Your task to perform on an android device: Clear the shopping cart on target. Search for energizer triple a on target, select the first entry, add it to the cart, then select checkout. Image 0: 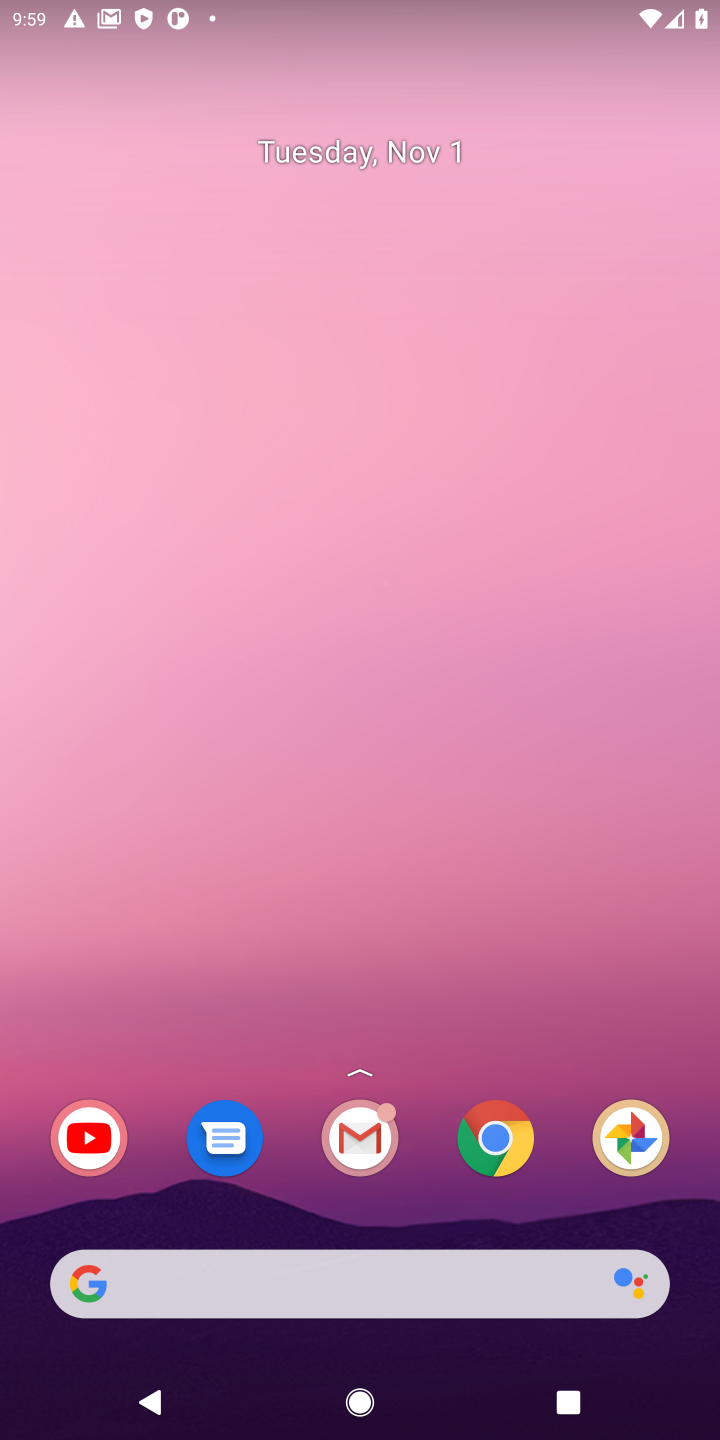
Step 0: click (489, 1139)
Your task to perform on an android device: Clear the shopping cart on target. Search for energizer triple a on target, select the first entry, add it to the cart, then select checkout. Image 1: 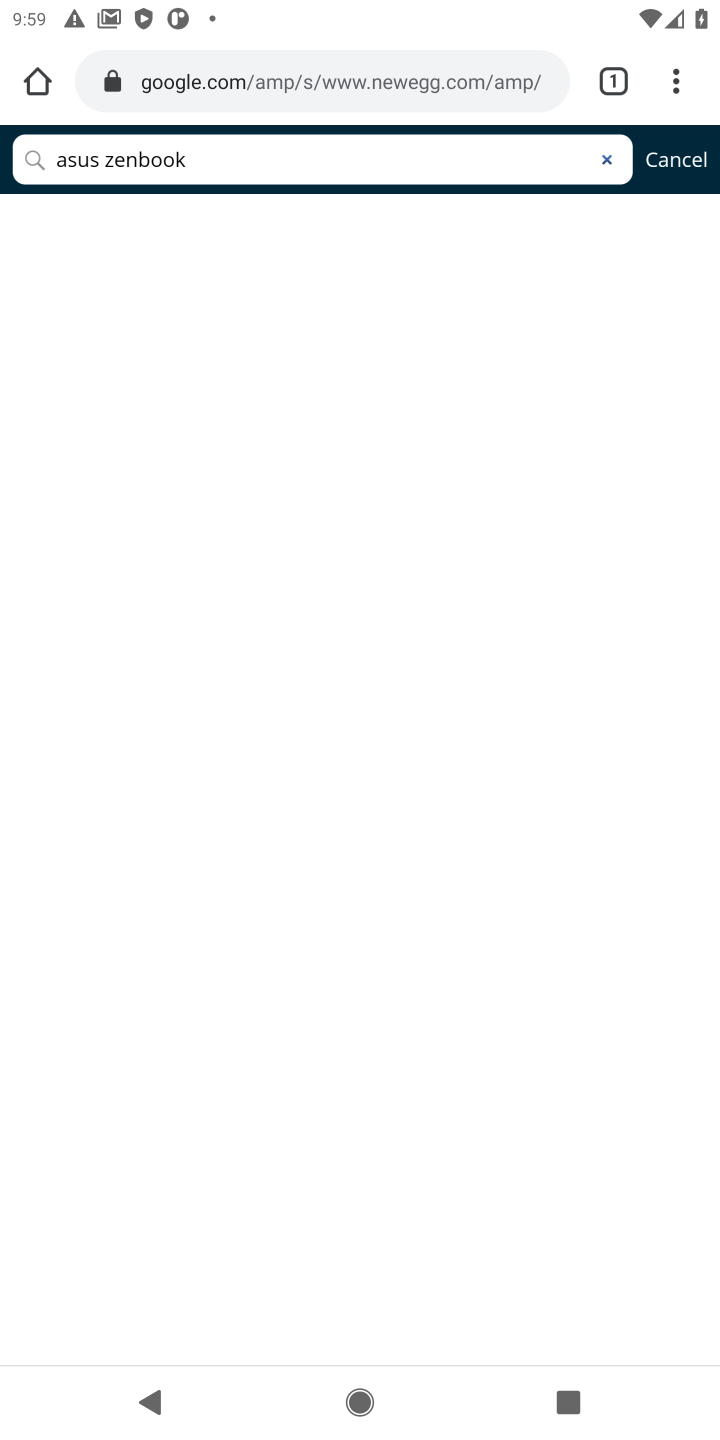
Step 1: click (200, 93)
Your task to perform on an android device: Clear the shopping cart on target. Search for energizer triple a on target, select the first entry, add it to the cart, then select checkout. Image 2: 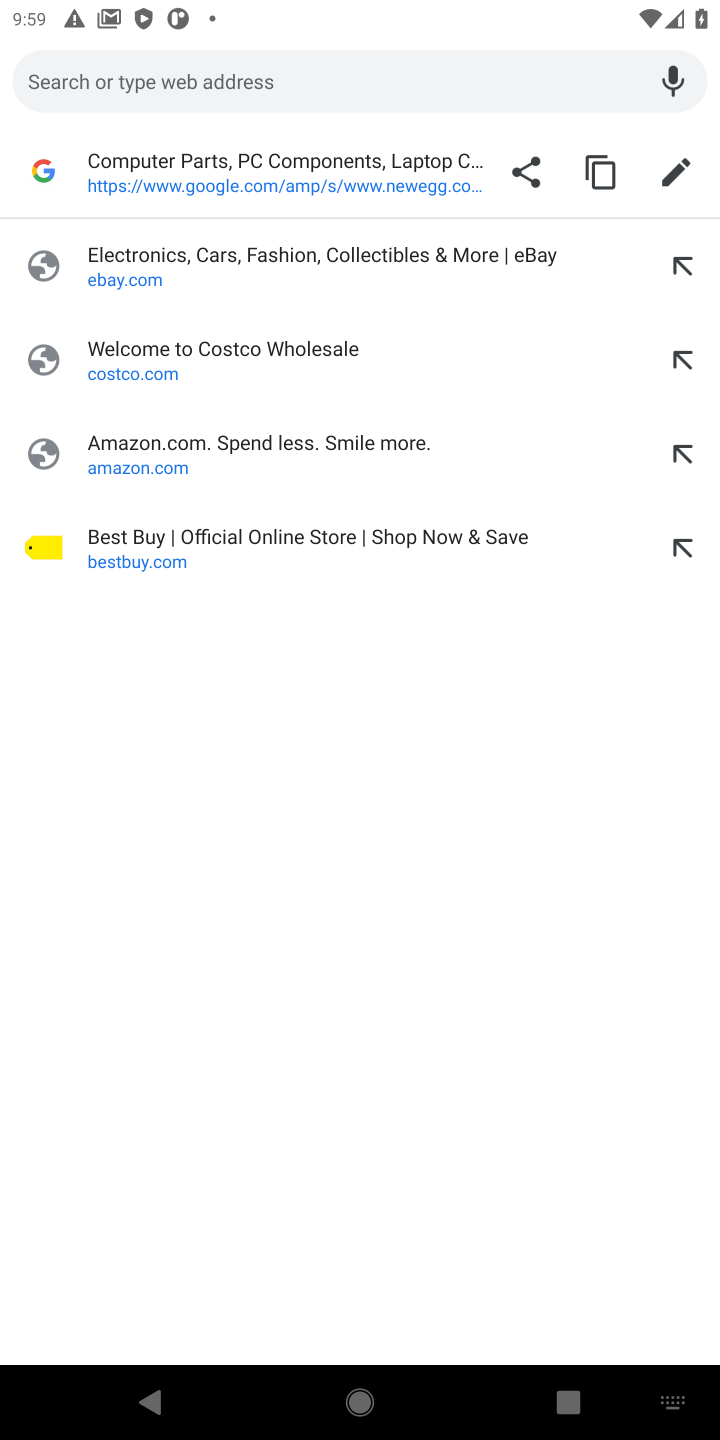
Step 2: type "target.com"
Your task to perform on an android device: Clear the shopping cart on target. Search for energizer triple a on target, select the first entry, add it to the cart, then select checkout. Image 3: 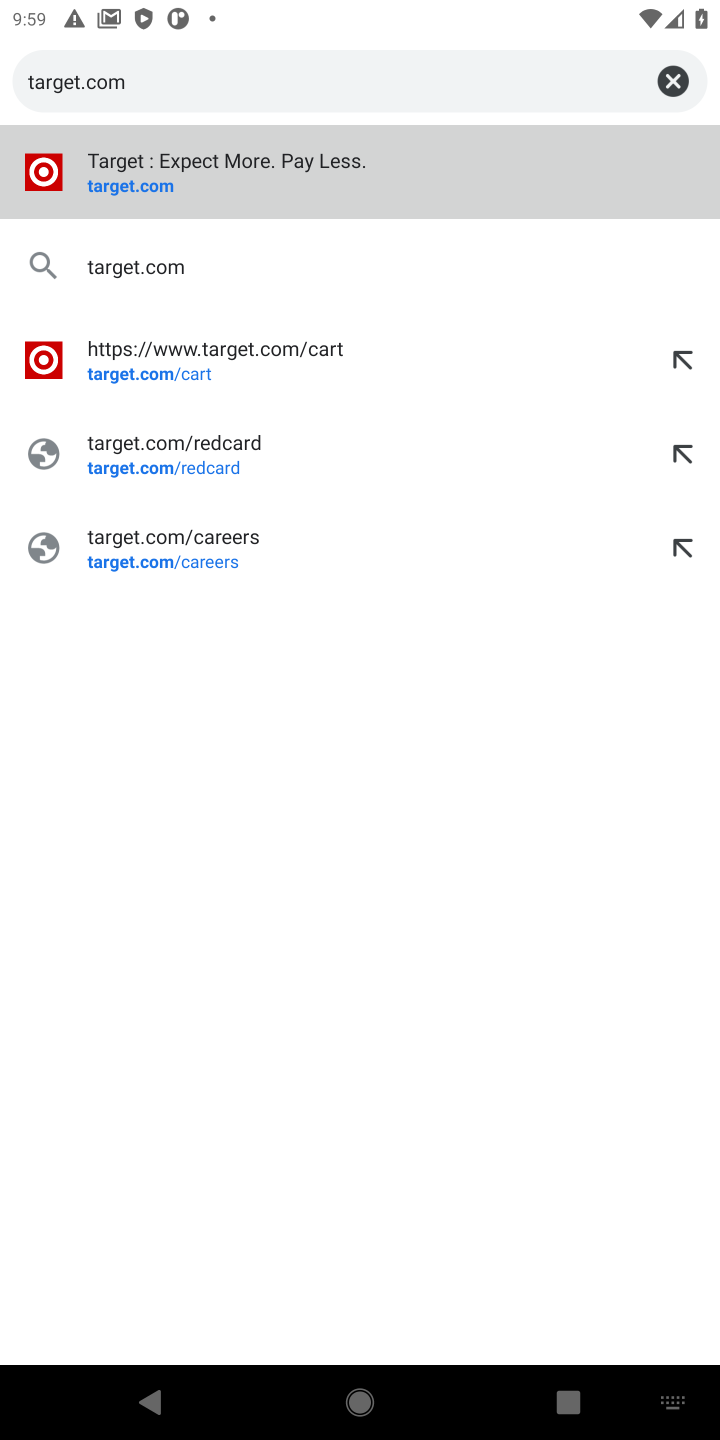
Step 3: click (120, 197)
Your task to perform on an android device: Clear the shopping cart on target. Search for energizer triple a on target, select the first entry, add it to the cart, then select checkout. Image 4: 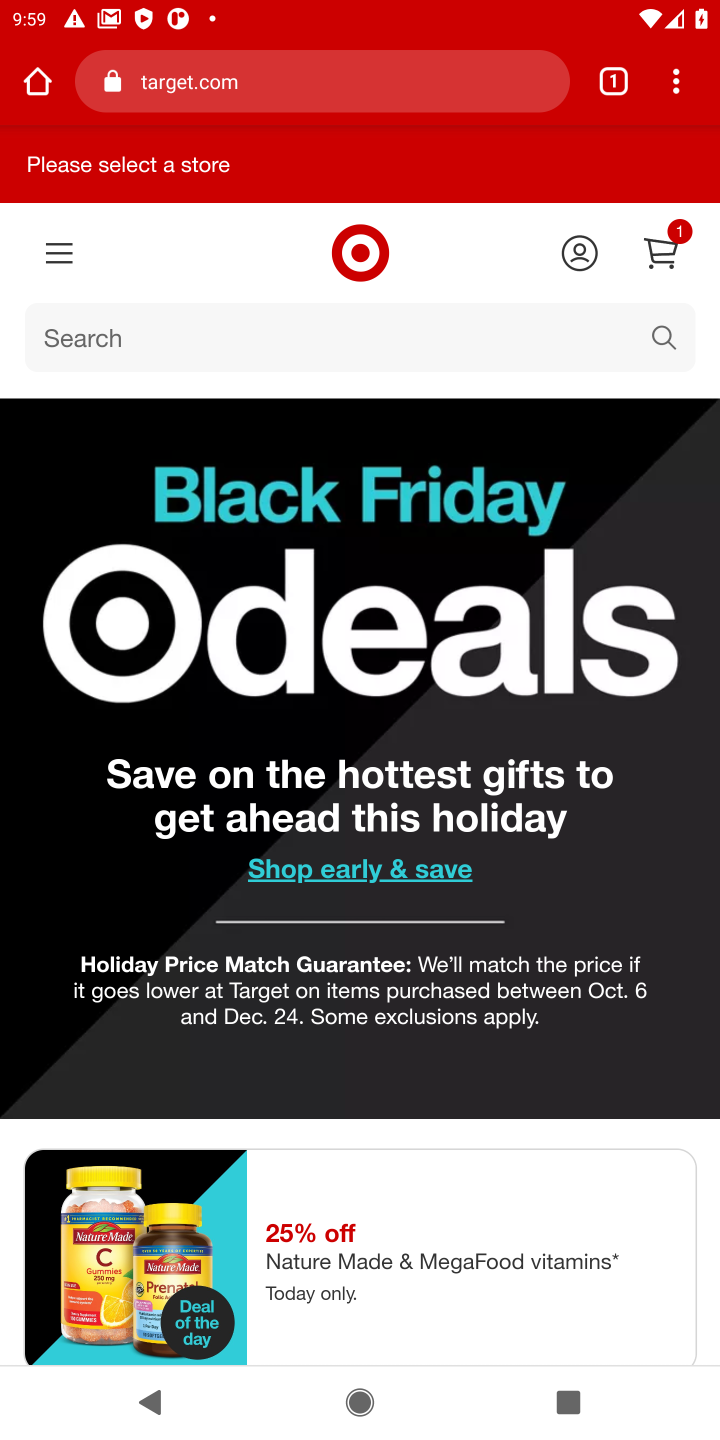
Step 4: click (668, 254)
Your task to perform on an android device: Clear the shopping cart on target. Search for energizer triple a on target, select the first entry, add it to the cart, then select checkout. Image 5: 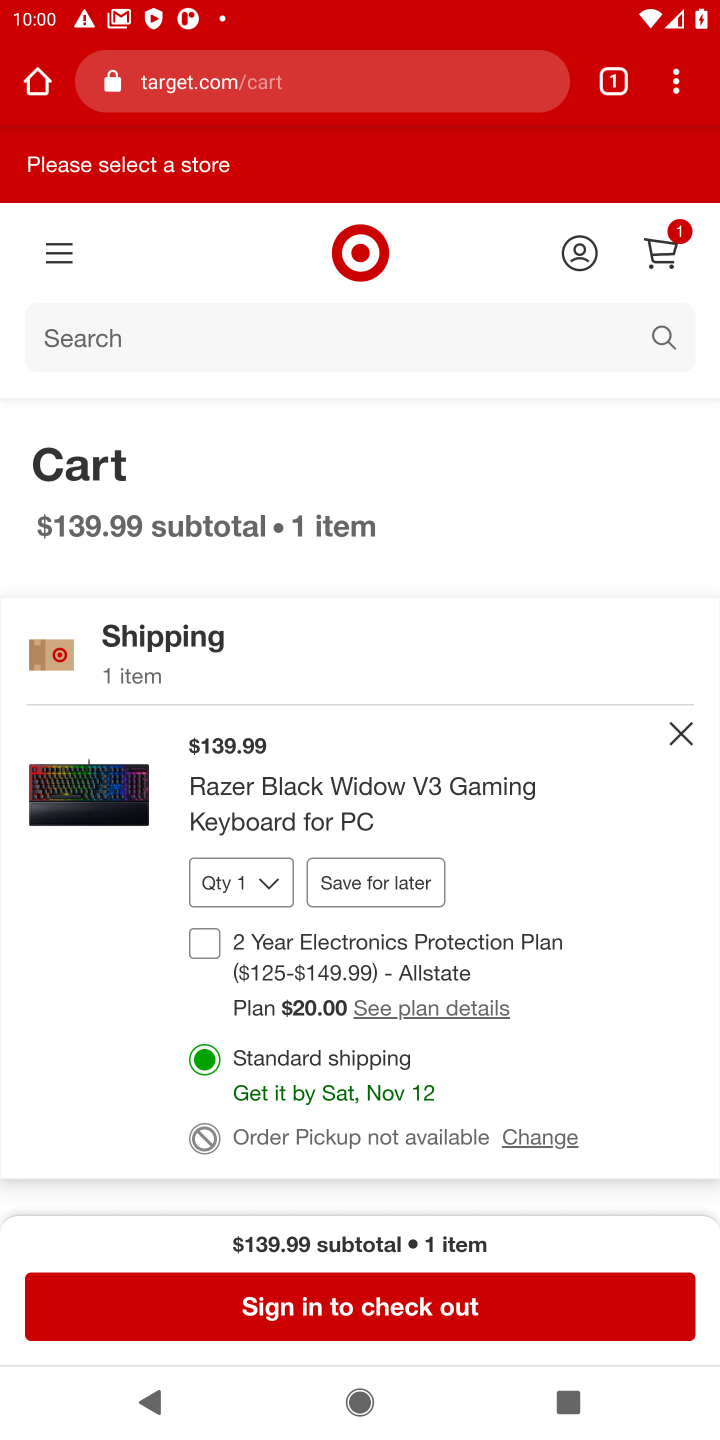
Step 5: click (669, 739)
Your task to perform on an android device: Clear the shopping cart on target. Search for energizer triple a on target, select the first entry, add it to the cart, then select checkout. Image 6: 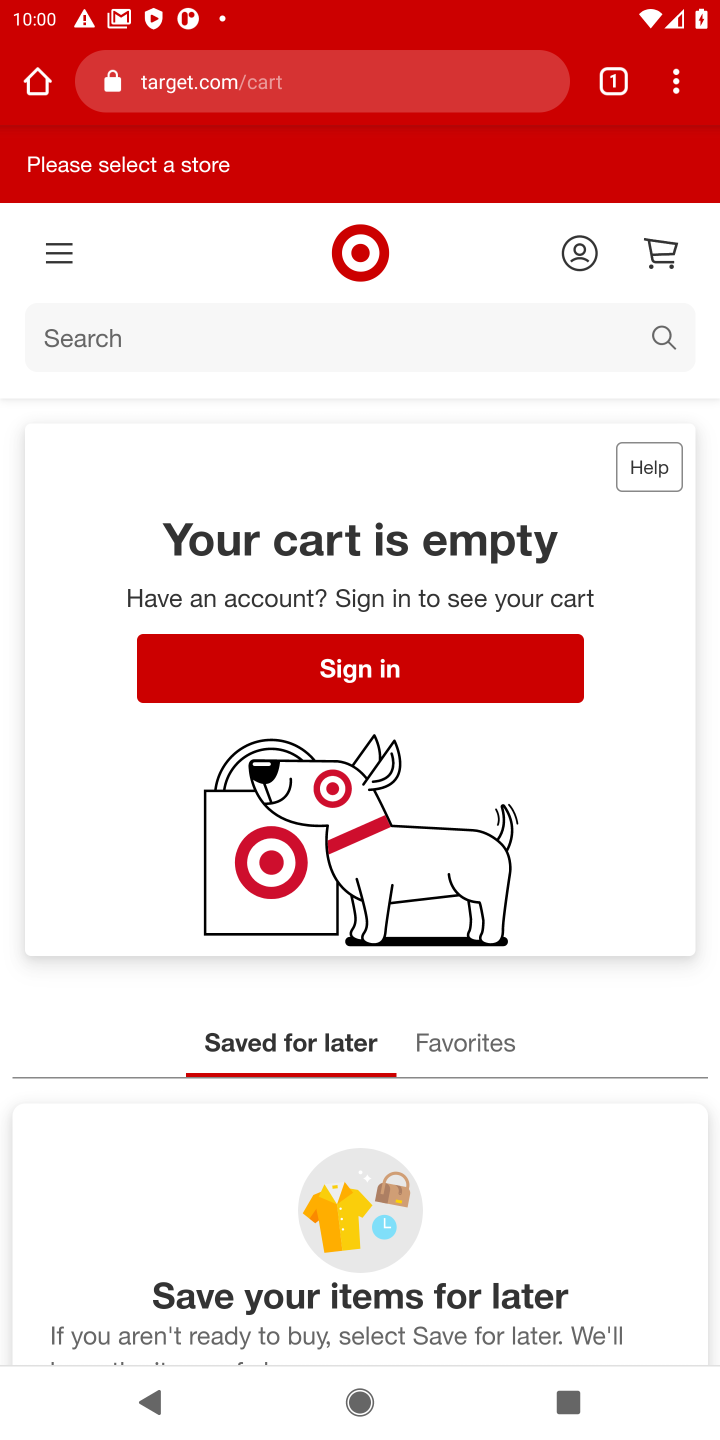
Step 6: click (650, 345)
Your task to perform on an android device: Clear the shopping cart on target. Search for energizer triple a on target, select the first entry, add it to the cart, then select checkout. Image 7: 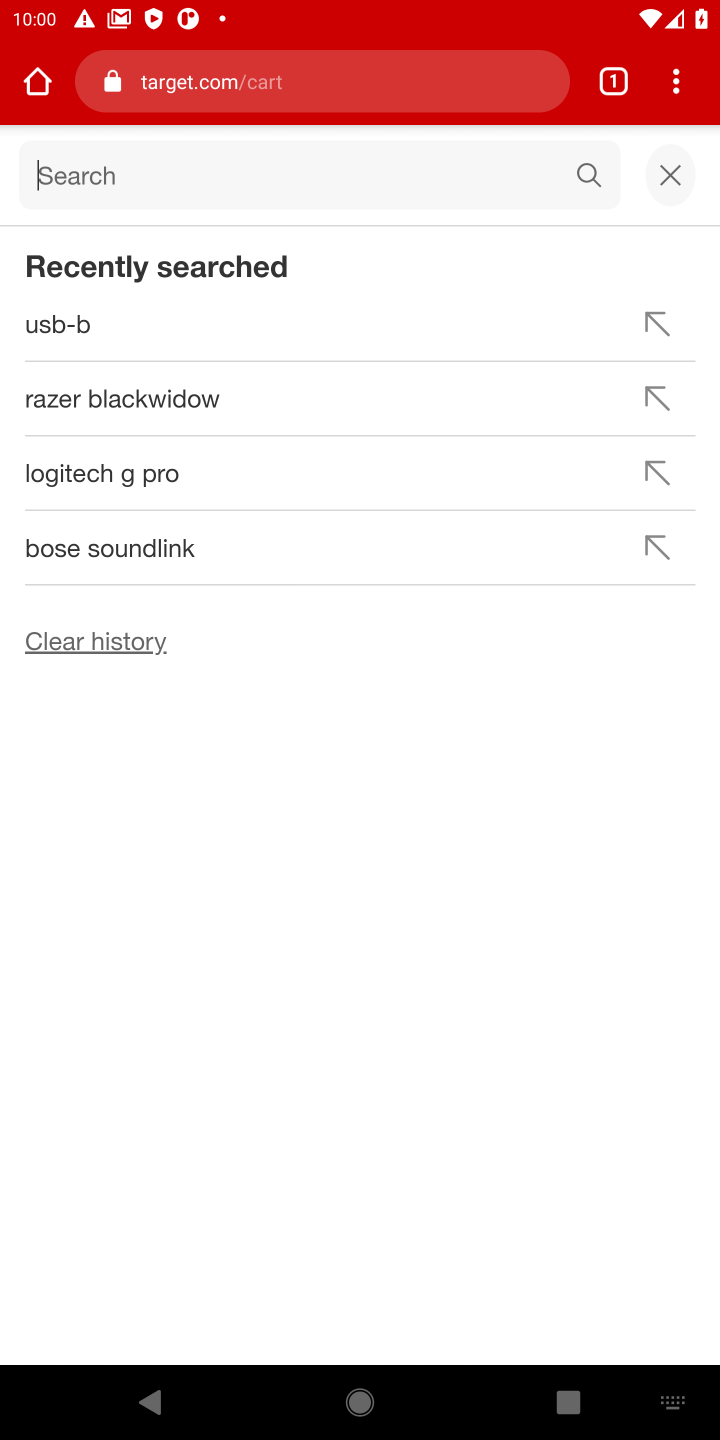
Step 7: type "energizer triple"
Your task to perform on an android device: Clear the shopping cart on target. Search for energizer triple a on target, select the first entry, add it to the cart, then select checkout. Image 8: 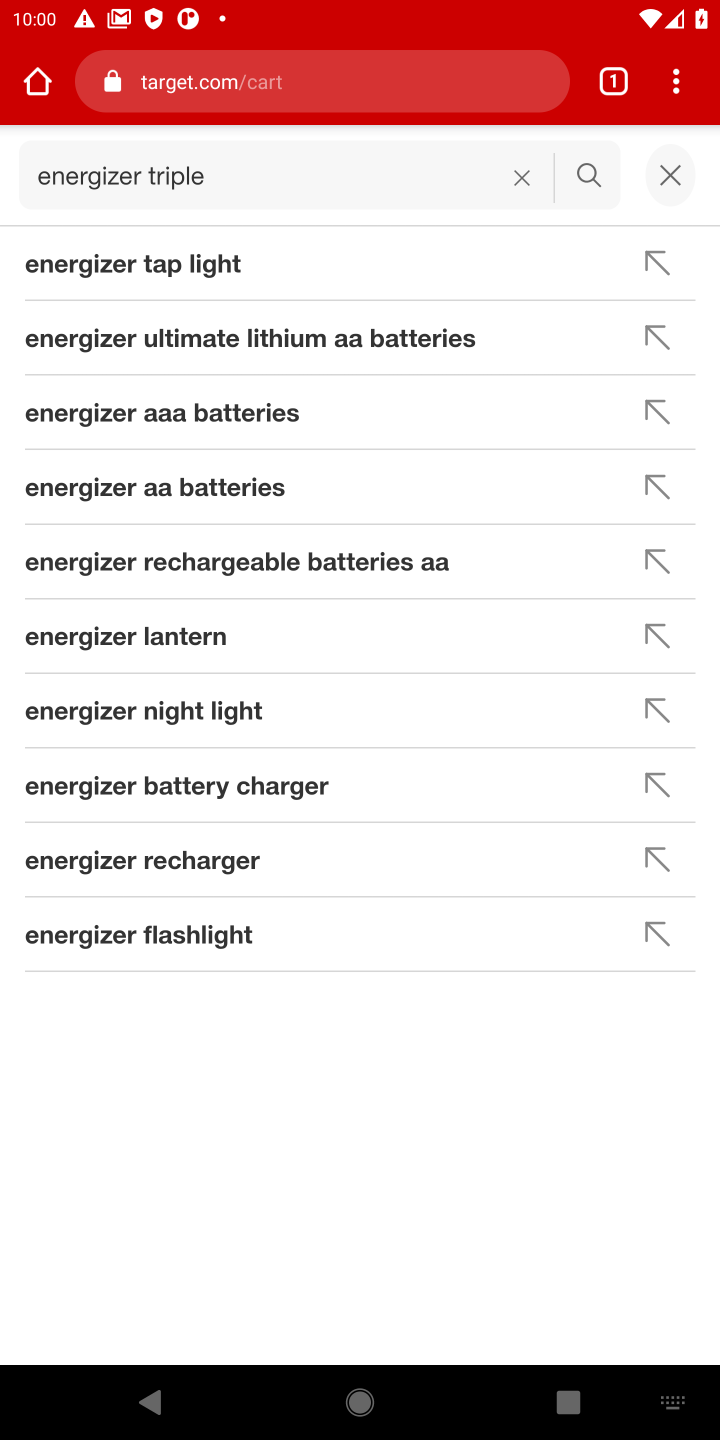
Step 8: click (591, 168)
Your task to perform on an android device: Clear the shopping cart on target. Search for energizer triple a on target, select the first entry, add it to the cart, then select checkout. Image 9: 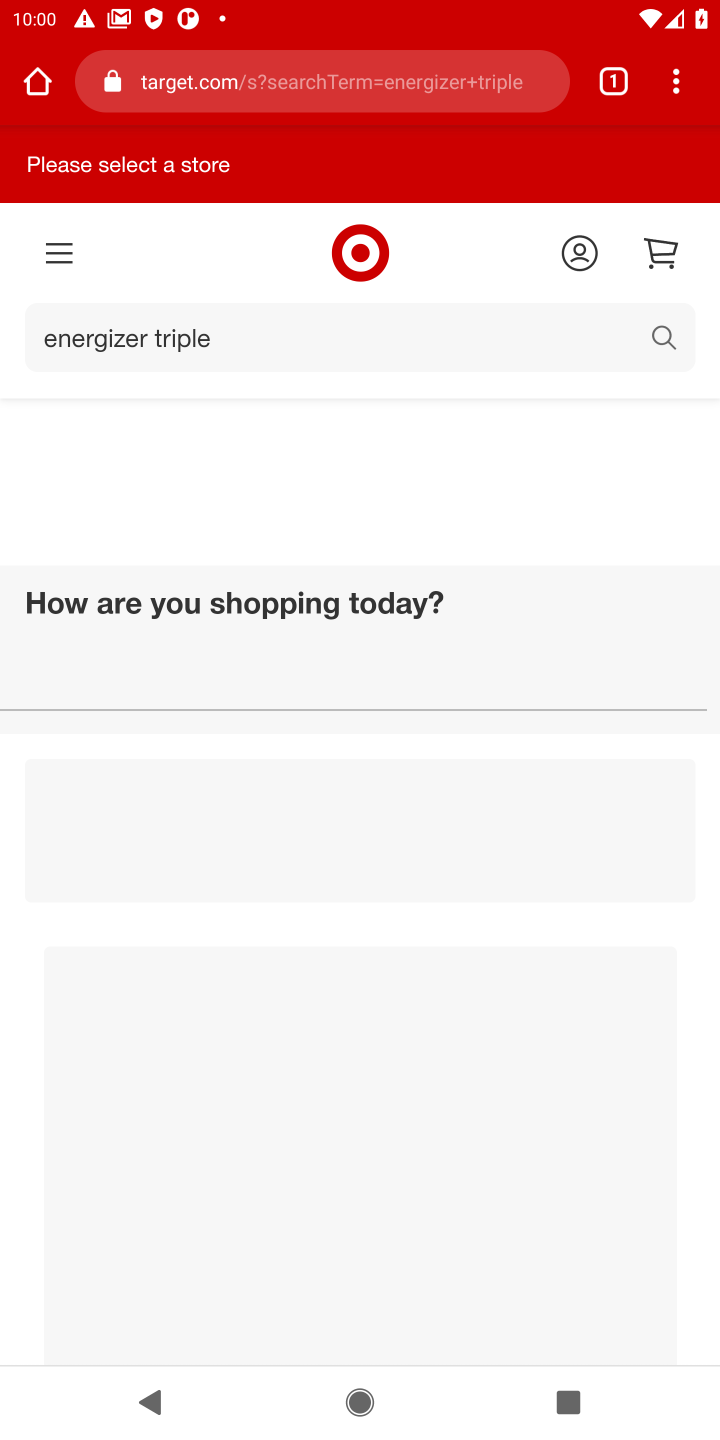
Step 9: click (237, 351)
Your task to perform on an android device: Clear the shopping cart on target. Search for energizer triple a on target, select the first entry, add it to the cart, then select checkout. Image 10: 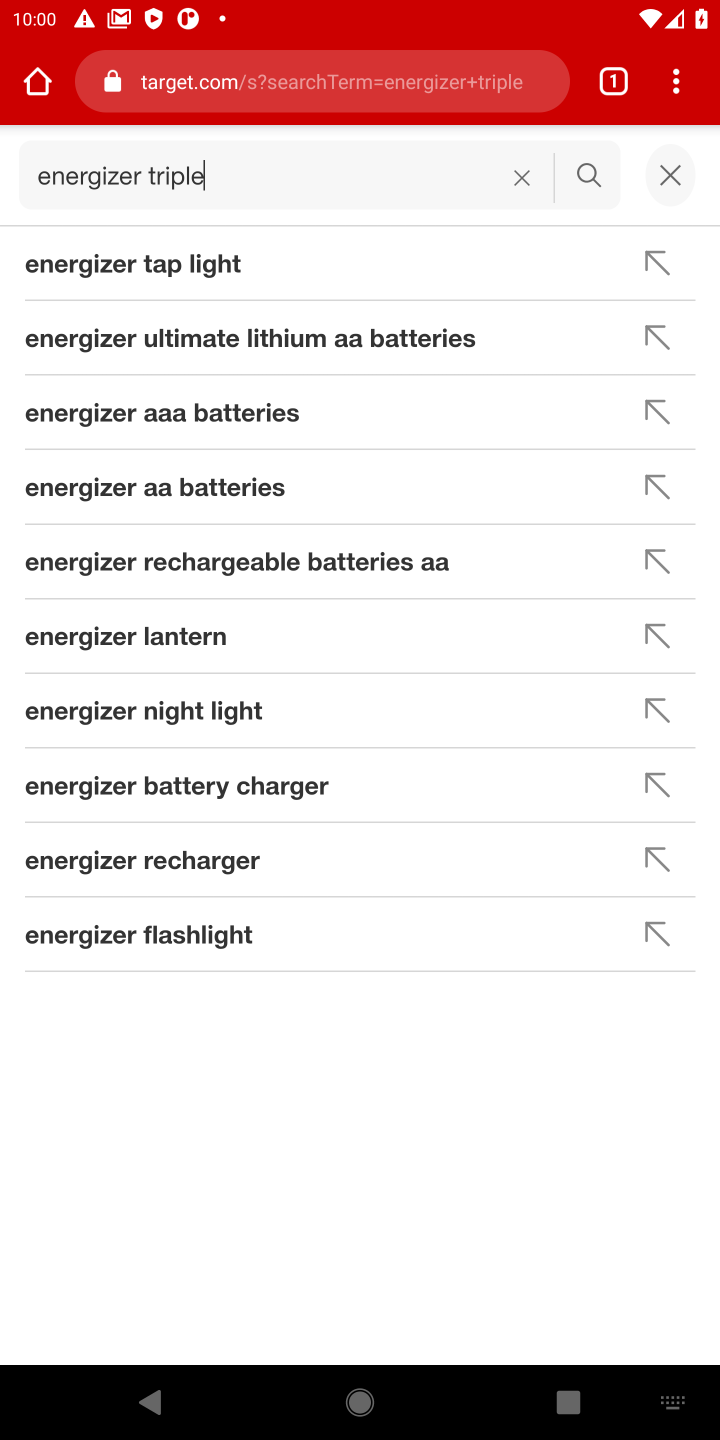
Step 10: click (224, 182)
Your task to perform on an android device: Clear the shopping cart on target. Search for energizer triple a on target, select the first entry, add it to the cart, then select checkout. Image 11: 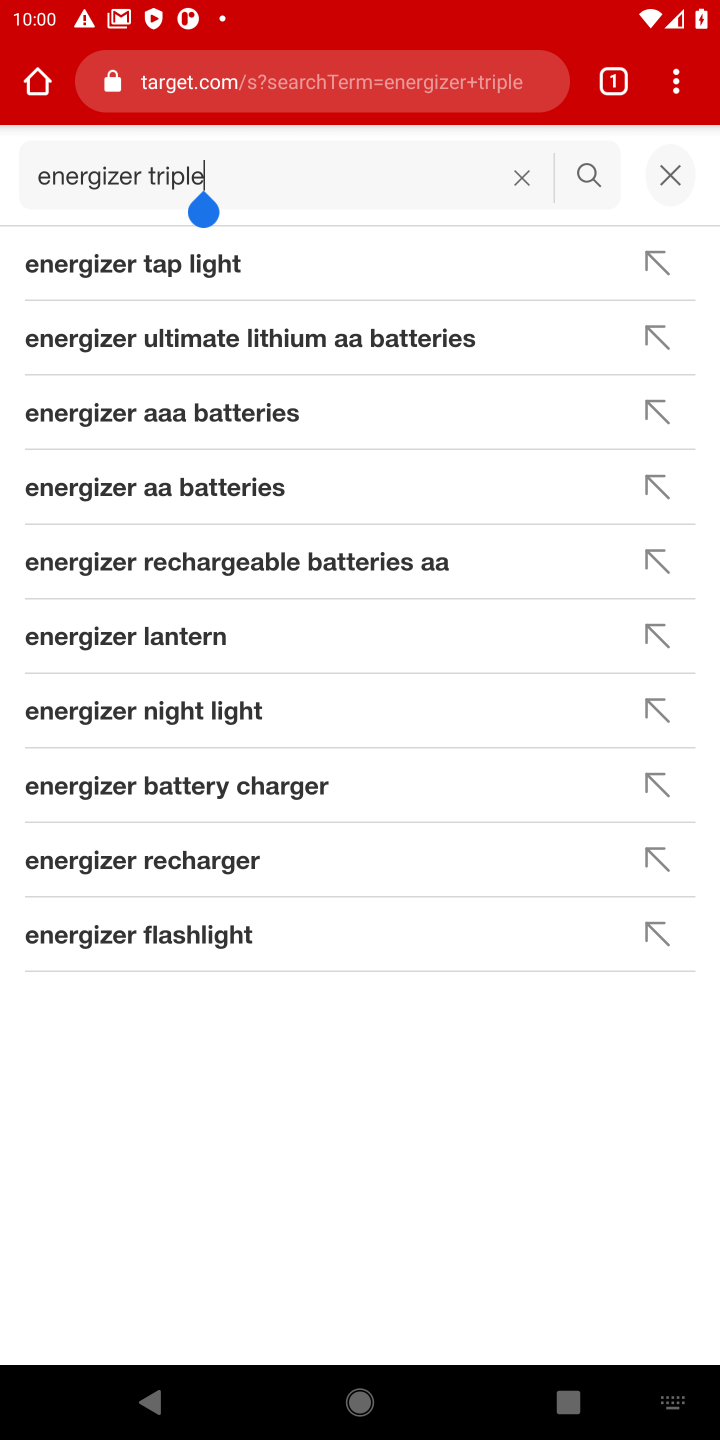
Step 11: type " a"
Your task to perform on an android device: Clear the shopping cart on target. Search for energizer triple a on target, select the first entry, add it to the cart, then select checkout. Image 12: 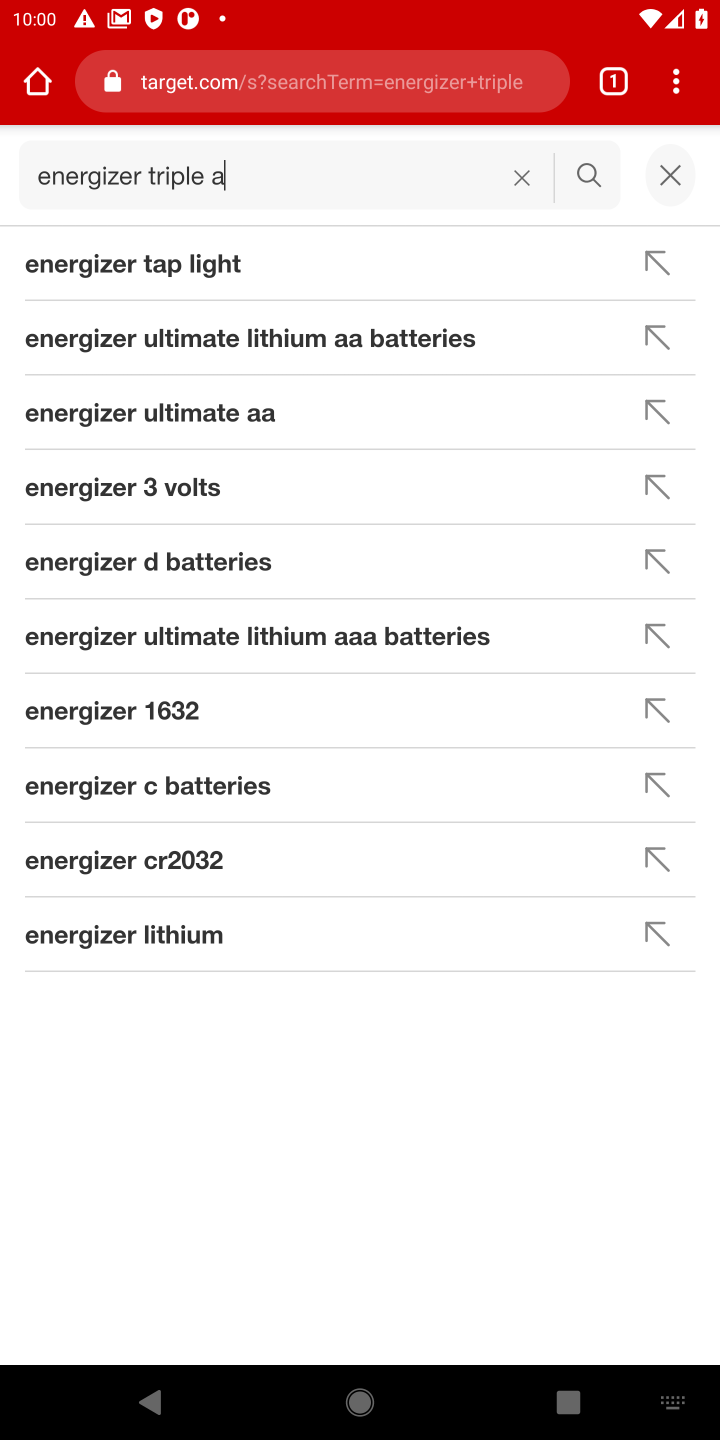
Step 12: click (578, 177)
Your task to perform on an android device: Clear the shopping cart on target. Search for energizer triple a on target, select the first entry, add it to the cart, then select checkout. Image 13: 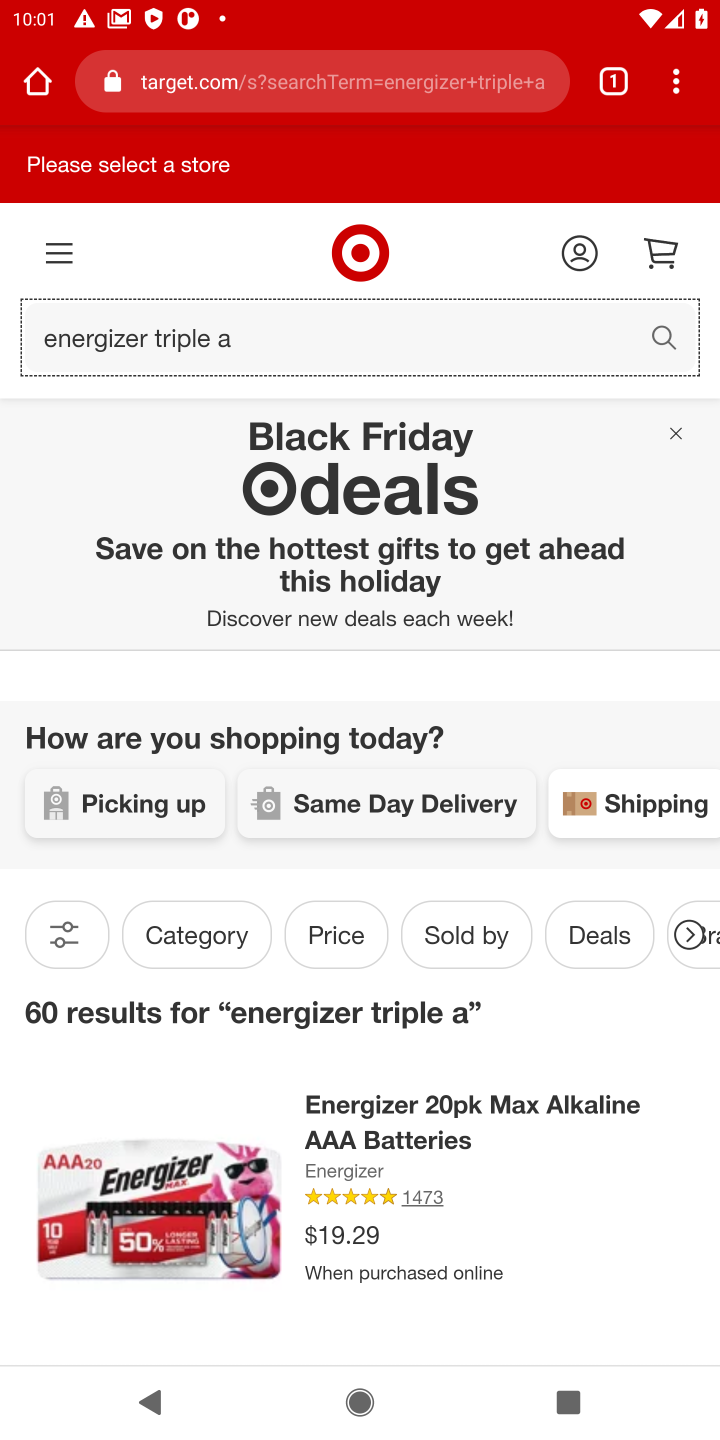
Step 13: click (308, 1213)
Your task to perform on an android device: Clear the shopping cart on target. Search for energizer triple a on target, select the first entry, add it to the cart, then select checkout. Image 14: 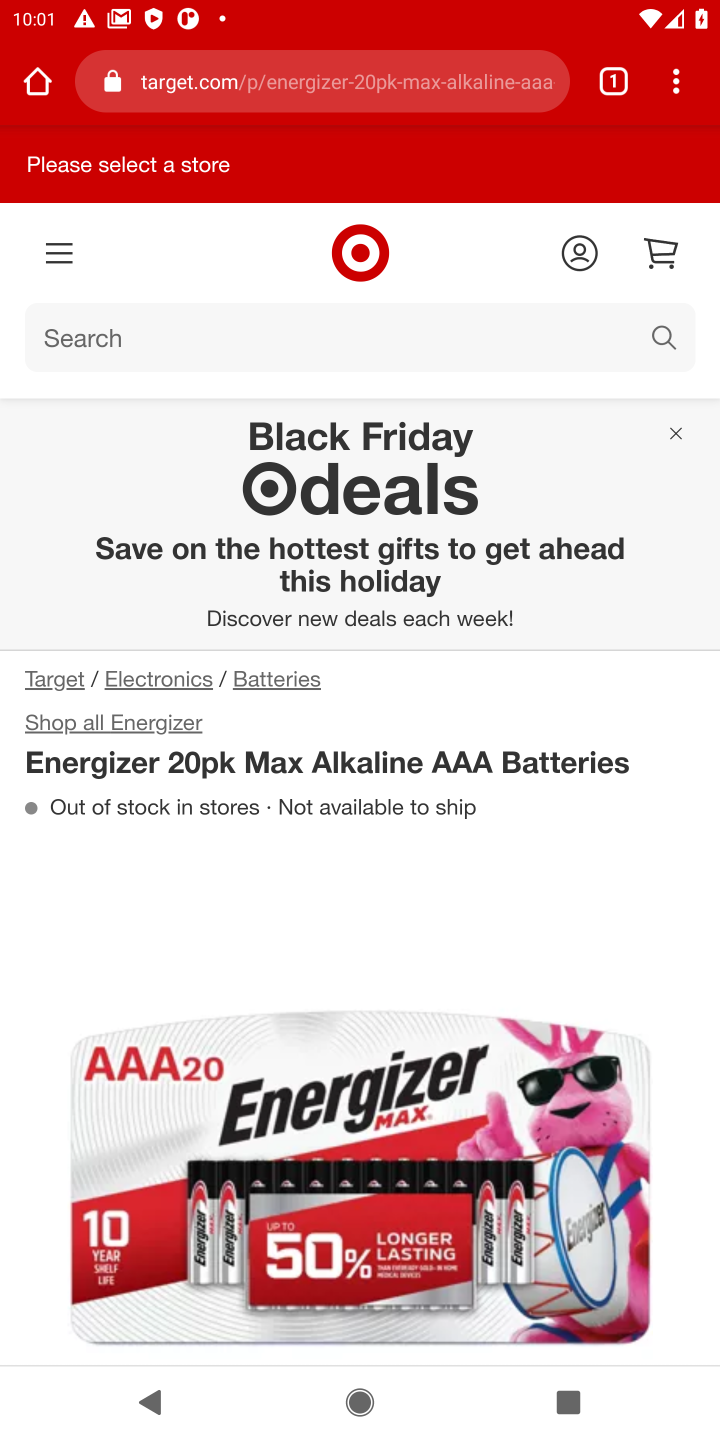
Step 14: drag from (306, 1129) to (336, 447)
Your task to perform on an android device: Clear the shopping cart on target. Search for energizer triple a on target, select the first entry, add it to the cart, then select checkout. Image 15: 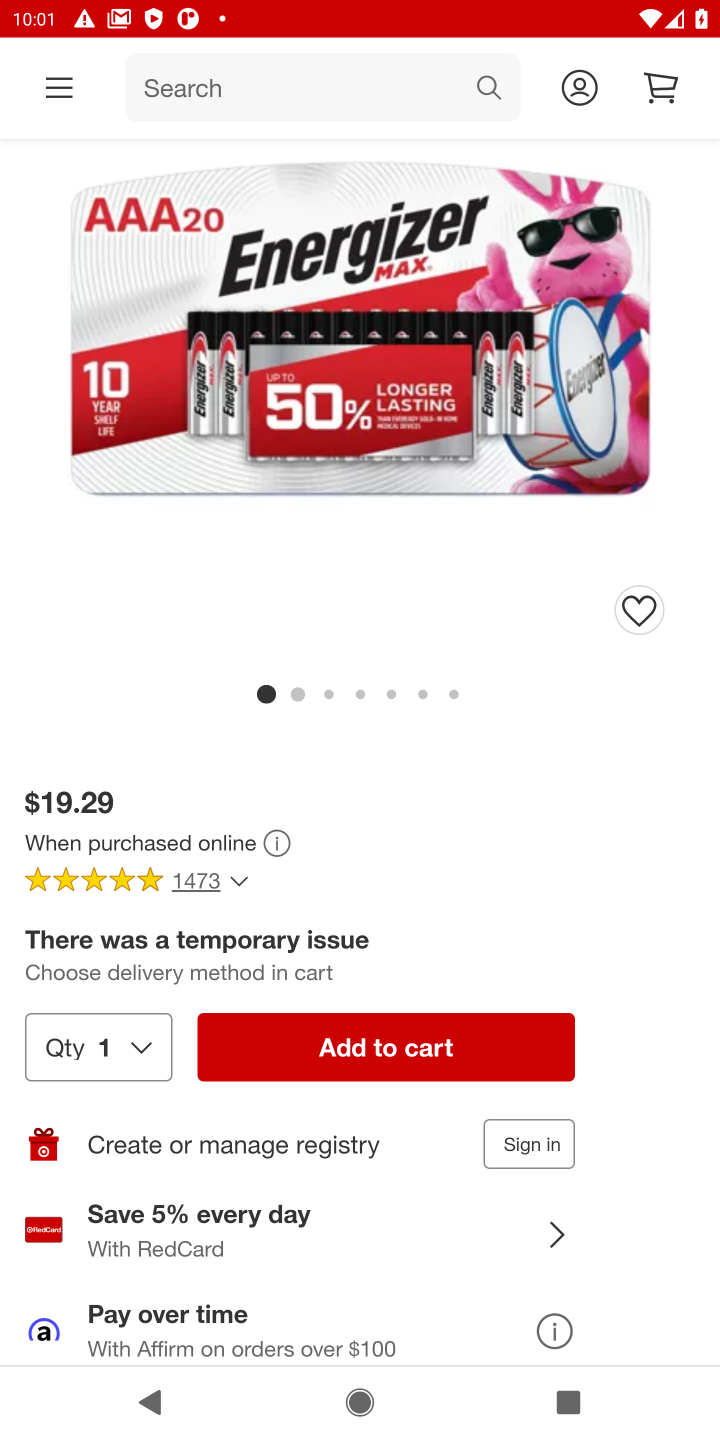
Step 15: click (377, 1060)
Your task to perform on an android device: Clear the shopping cart on target. Search for energizer triple a on target, select the first entry, add it to the cart, then select checkout. Image 16: 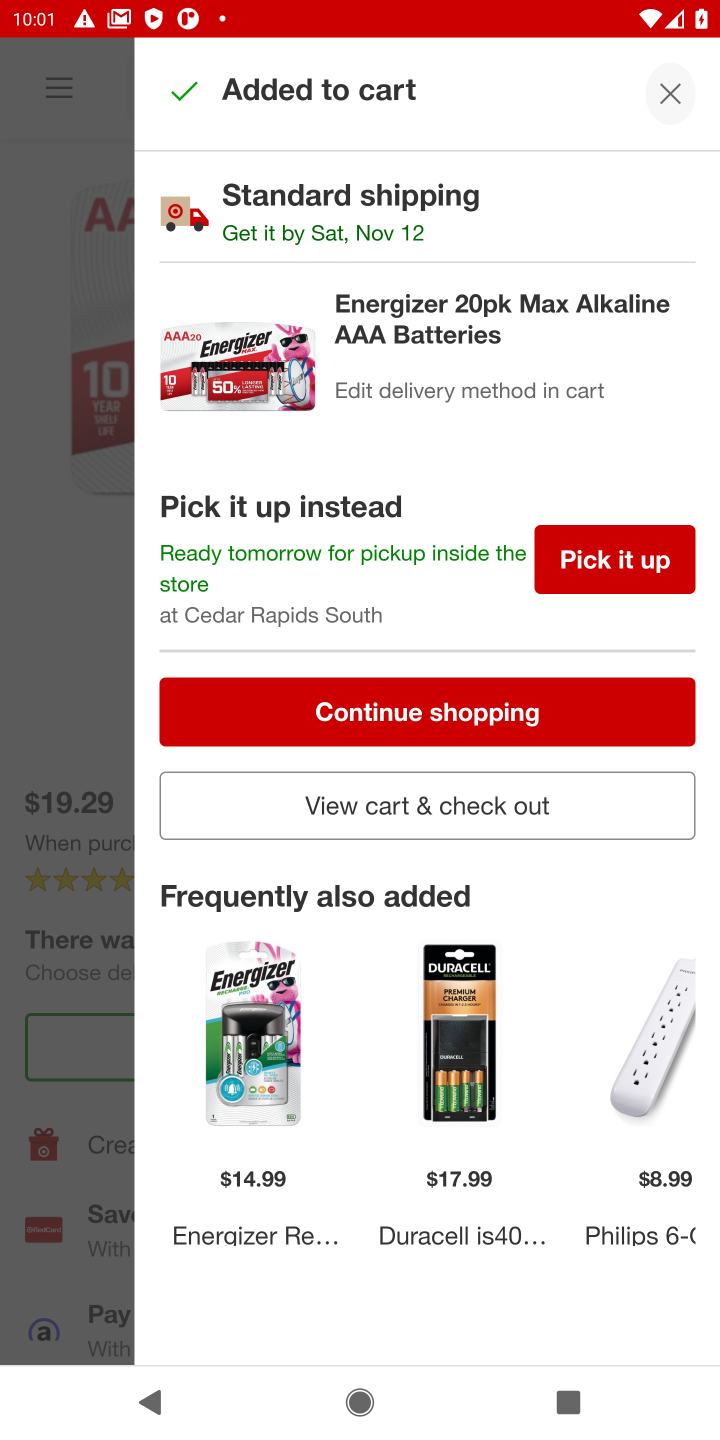
Step 16: click (668, 102)
Your task to perform on an android device: Clear the shopping cart on target. Search for energizer triple a on target, select the first entry, add it to the cart, then select checkout. Image 17: 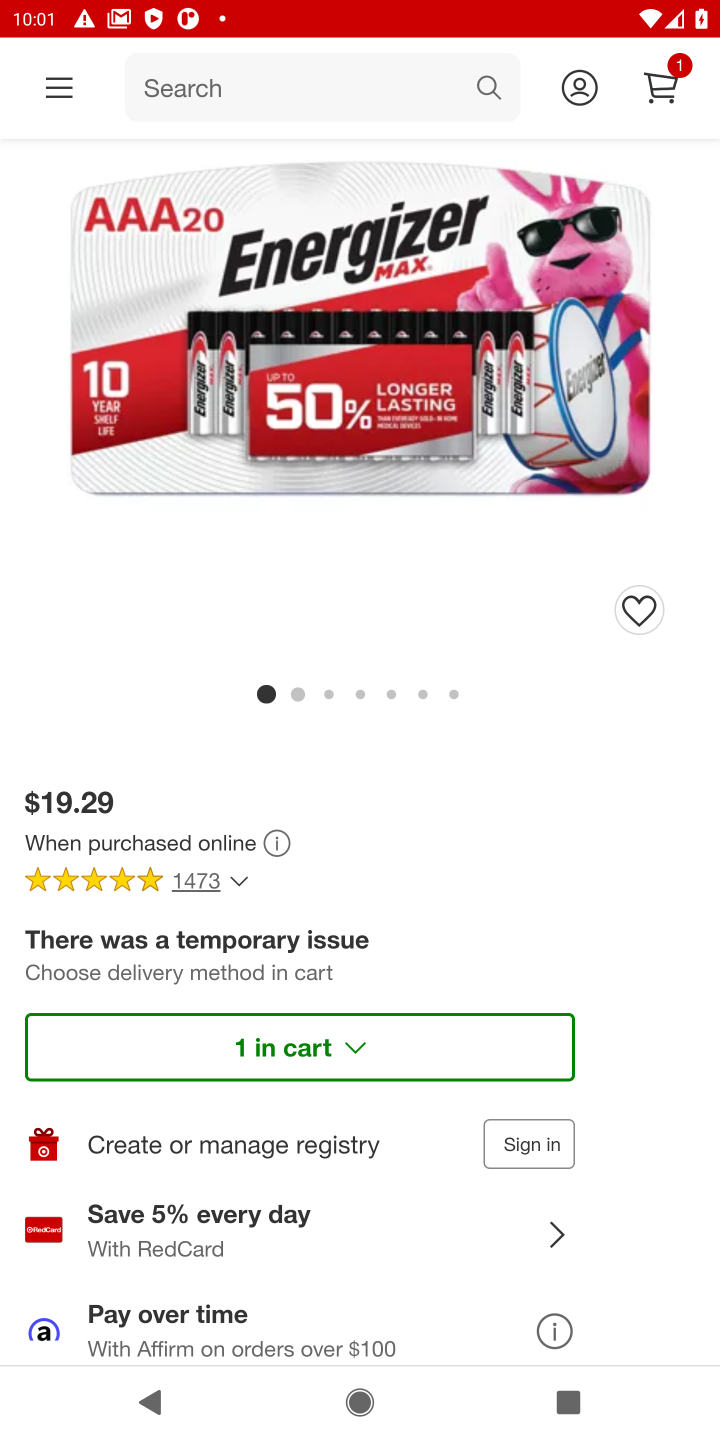
Step 17: click (666, 88)
Your task to perform on an android device: Clear the shopping cart on target. Search for energizer triple a on target, select the first entry, add it to the cart, then select checkout. Image 18: 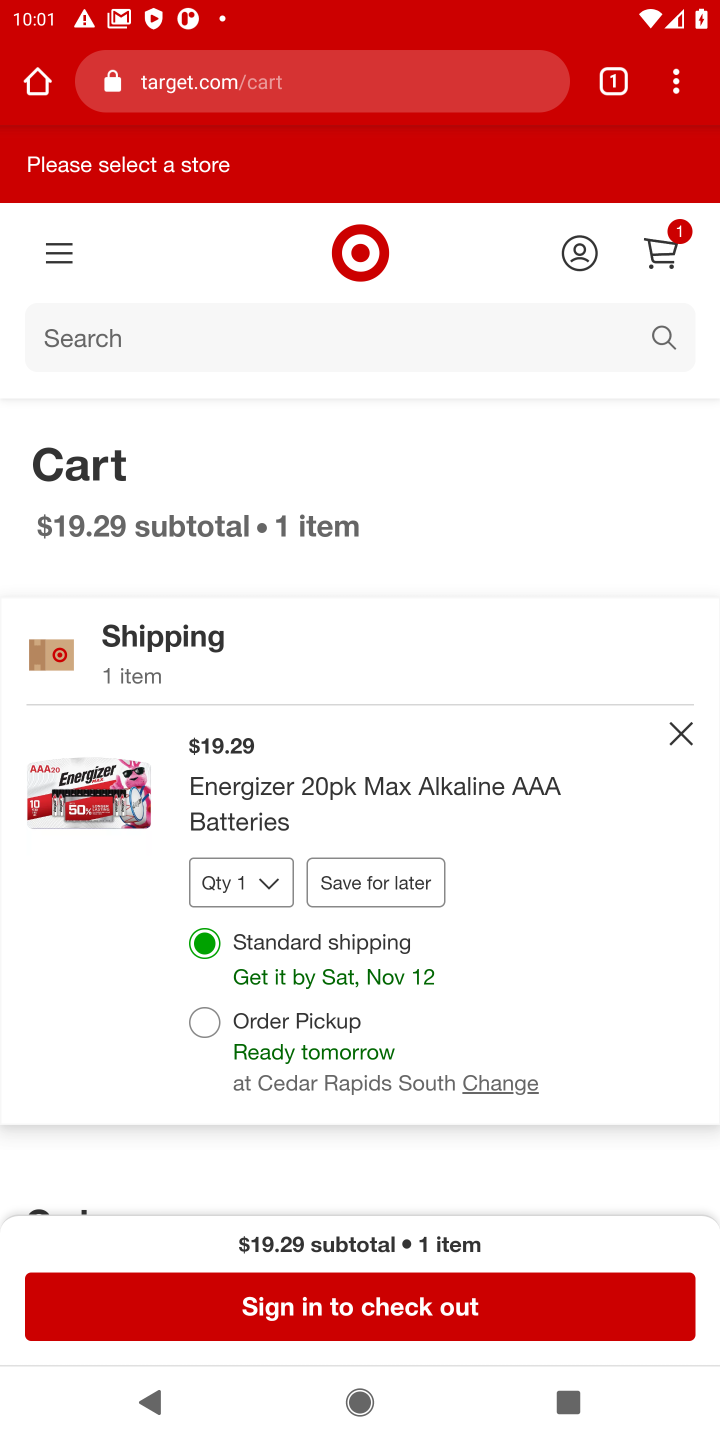
Step 18: click (359, 1313)
Your task to perform on an android device: Clear the shopping cart on target. Search for energizer triple a on target, select the first entry, add it to the cart, then select checkout. Image 19: 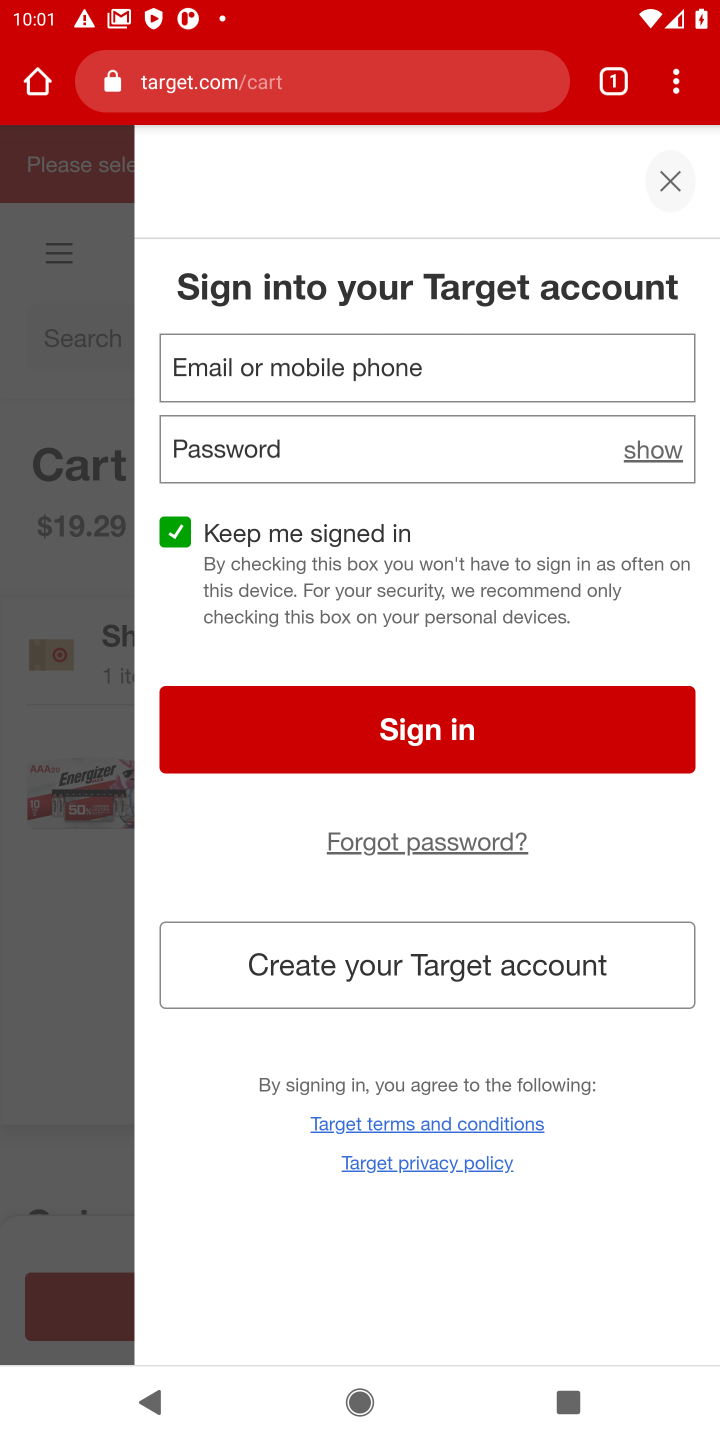
Step 19: task complete